Your task to perform on an android device: allow cookies in the chrome app Image 0: 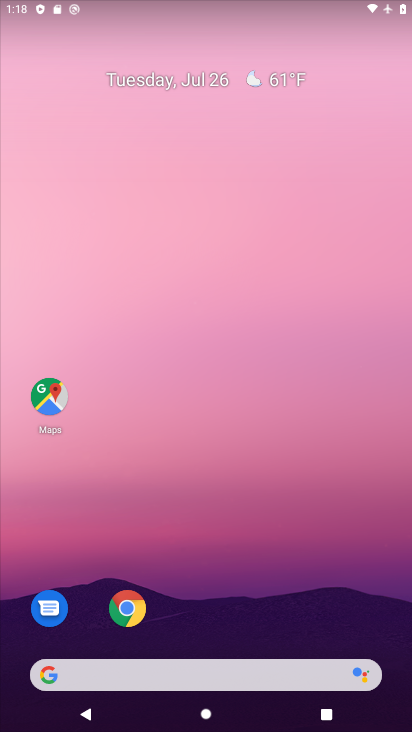
Step 0: drag from (207, 604) to (216, 152)
Your task to perform on an android device: allow cookies in the chrome app Image 1: 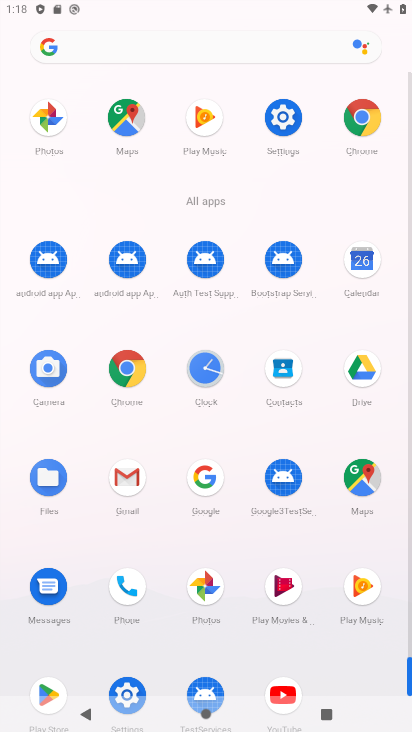
Step 1: click (140, 383)
Your task to perform on an android device: allow cookies in the chrome app Image 2: 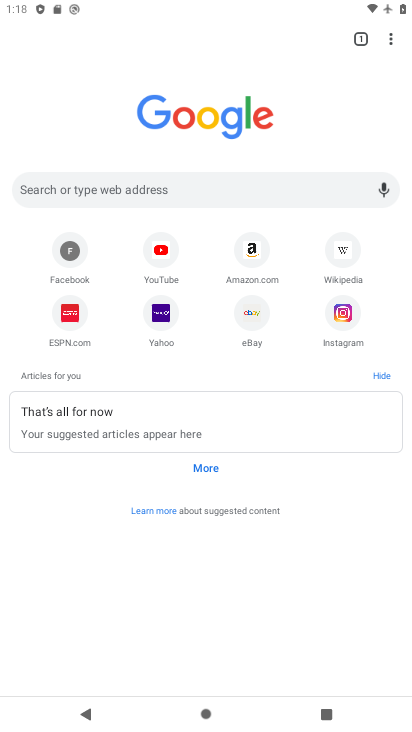
Step 2: click (394, 40)
Your task to perform on an android device: allow cookies in the chrome app Image 3: 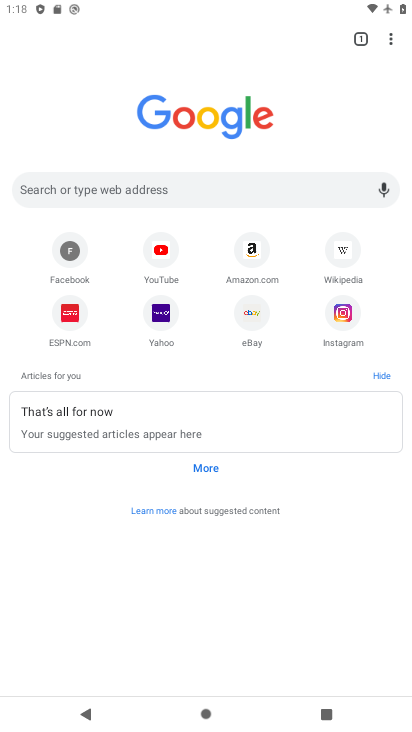
Step 3: click (394, 40)
Your task to perform on an android device: allow cookies in the chrome app Image 4: 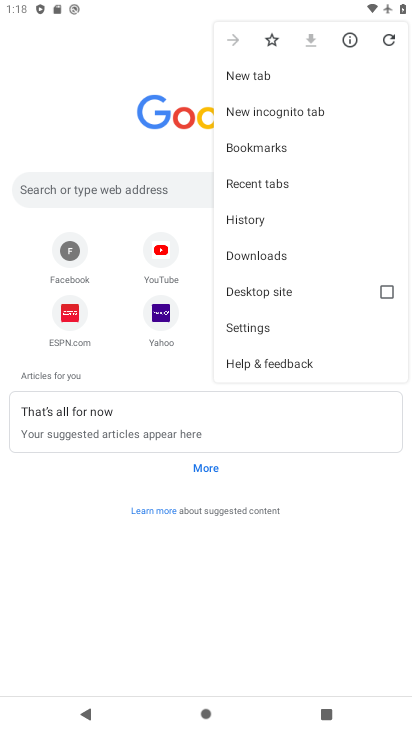
Step 4: click (249, 324)
Your task to perform on an android device: allow cookies in the chrome app Image 5: 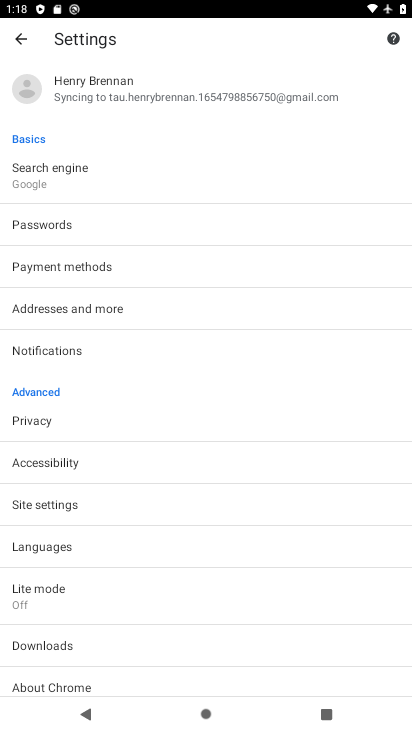
Step 5: click (100, 511)
Your task to perform on an android device: allow cookies in the chrome app Image 6: 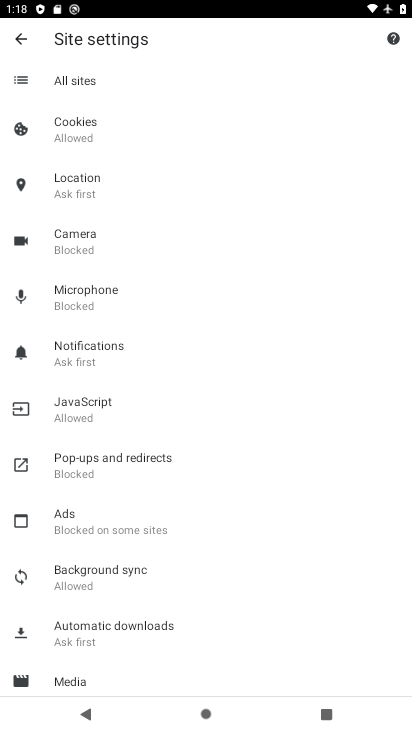
Step 6: click (150, 491)
Your task to perform on an android device: allow cookies in the chrome app Image 7: 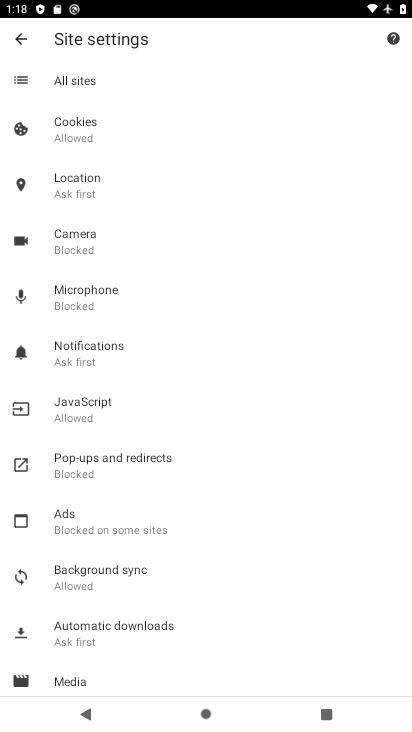
Step 7: click (90, 136)
Your task to perform on an android device: allow cookies in the chrome app Image 8: 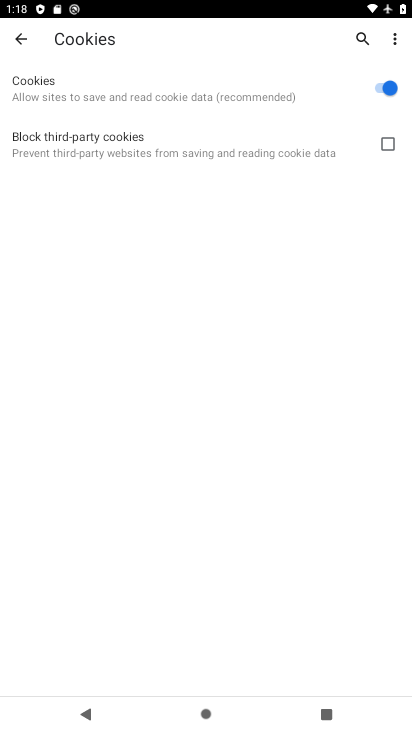
Step 8: task complete